Your task to perform on an android device: Search for Mexican restaurants on Maps Image 0: 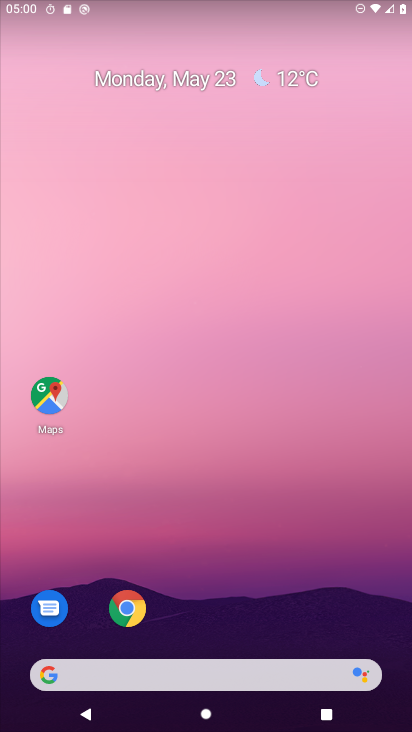
Step 0: click (39, 396)
Your task to perform on an android device: Search for Mexican restaurants on Maps Image 1: 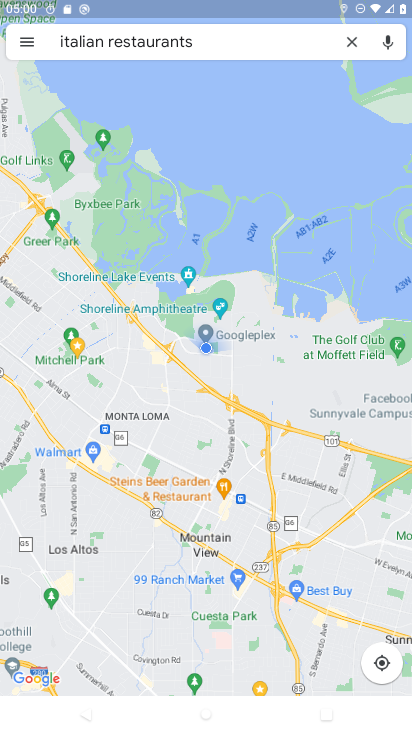
Step 1: click (215, 53)
Your task to perform on an android device: Search for Mexican restaurants on Maps Image 2: 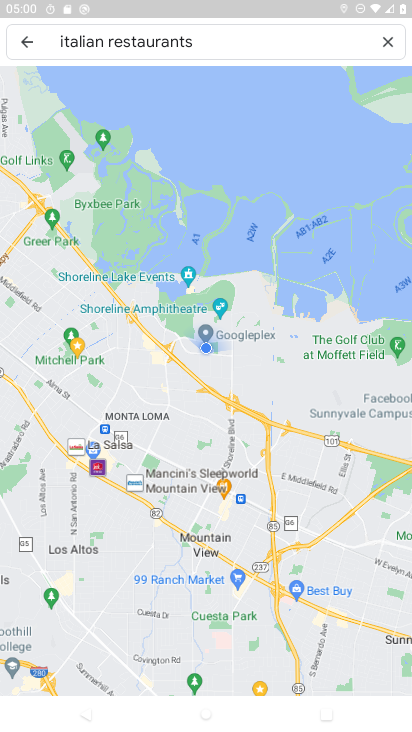
Step 2: click (349, 39)
Your task to perform on an android device: Search for Mexican restaurants on Maps Image 3: 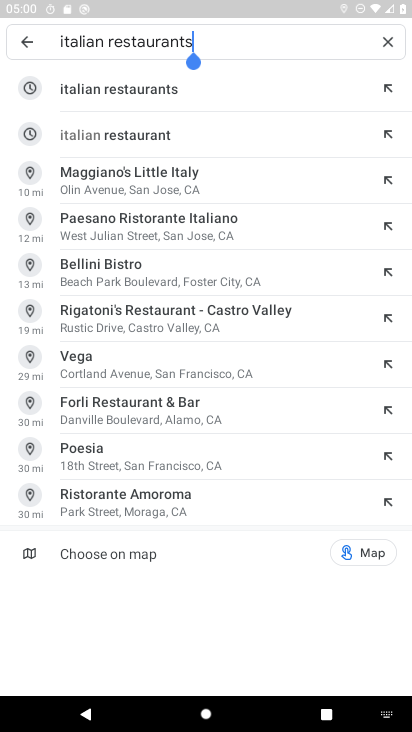
Step 3: click (386, 40)
Your task to perform on an android device: Search for Mexican restaurants on Maps Image 4: 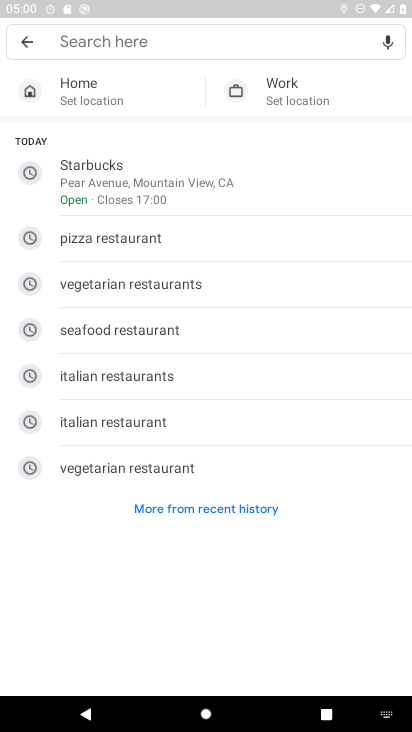
Step 4: type "mexican restaurants"
Your task to perform on an android device: Search for Mexican restaurants on Maps Image 5: 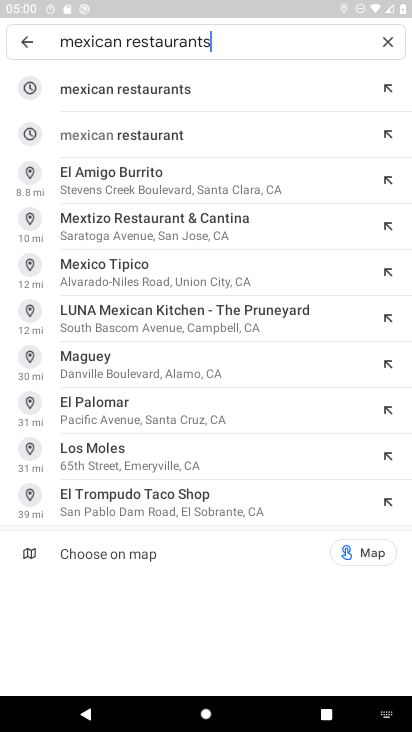
Step 5: click (142, 87)
Your task to perform on an android device: Search for Mexican restaurants on Maps Image 6: 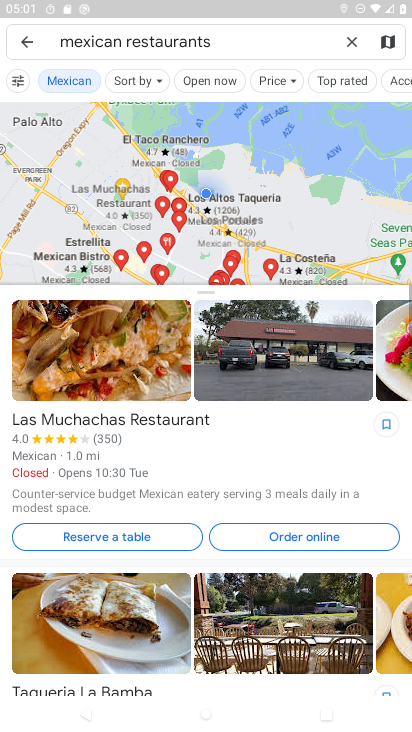
Step 6: task complete